Your task to perform on an android device: Open ESPN.com Image 0: 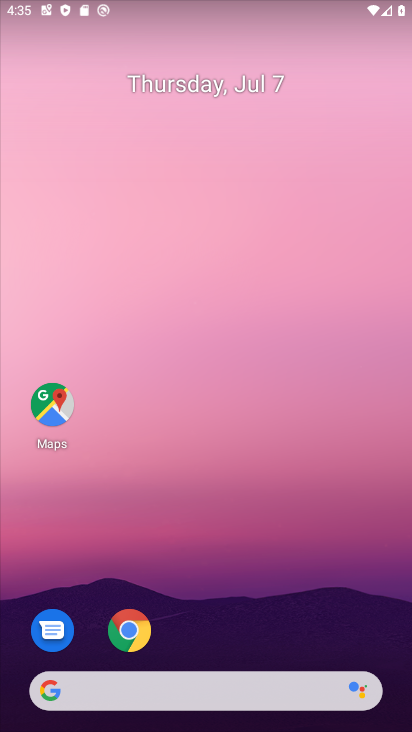
Step 0: click (130, 635)
Your task to perform on an android device: Open ESPN.com Image 1: 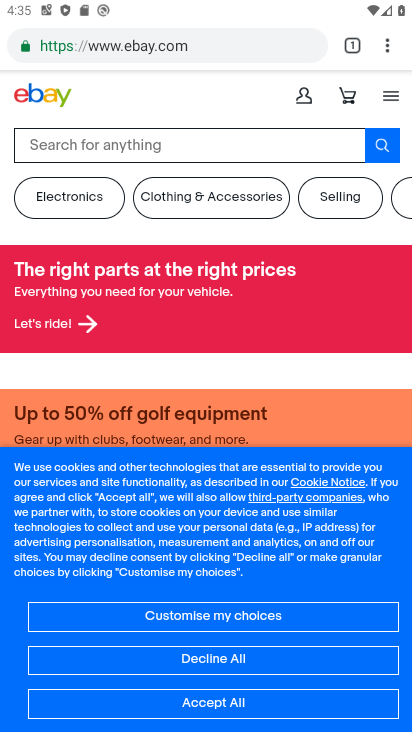
Step 1: click (350, 51)
Your task to perform on an android device: Open ESPN.com Image 2: 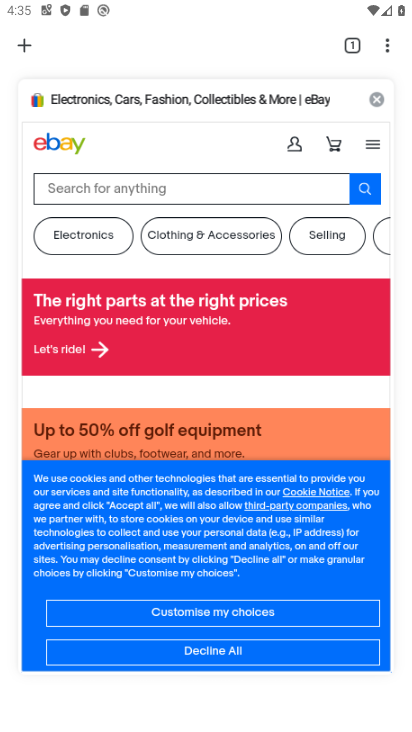
Step 2: click (25, 48)
Your task to perform on an android device: Open ESPN.com Image 3: 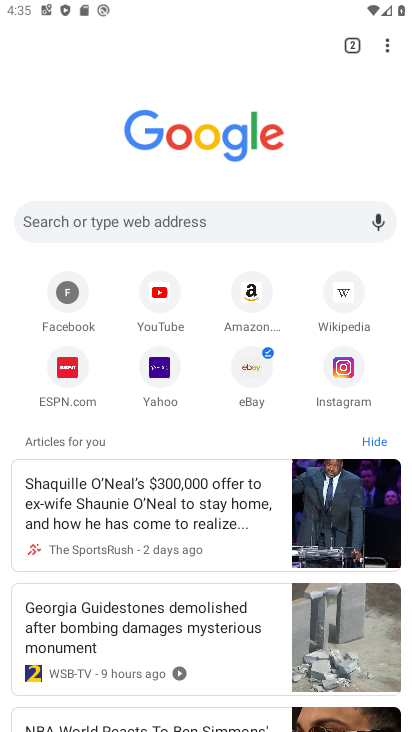
Step 3: click (74, 361)
Your task to perform on an android device: Open ESPN.com Image 4: 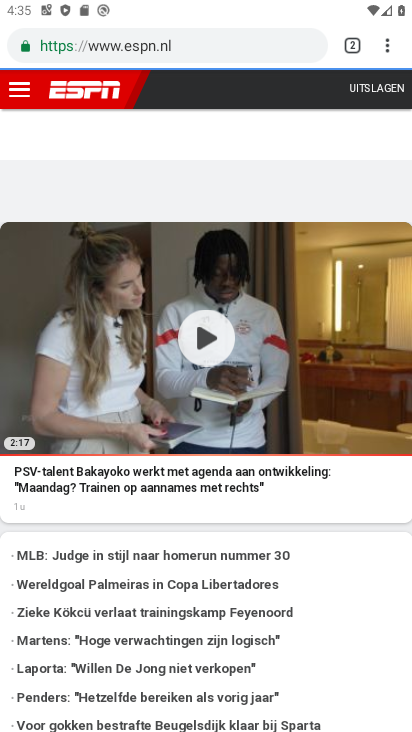
Step 4: task complete